Your task to perform on an android device: change text size in settings app Image 0: 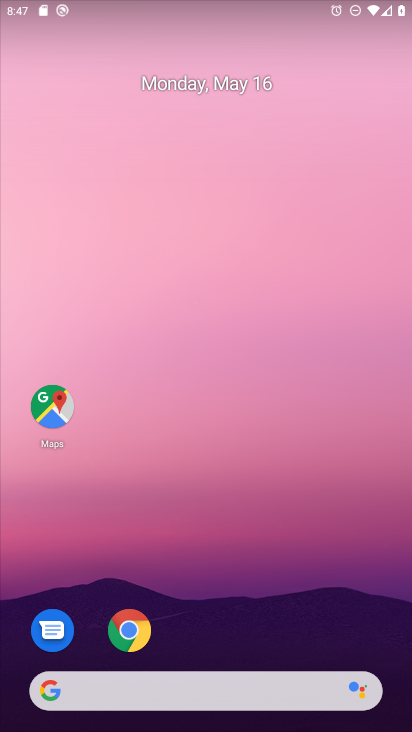
Step 0: drag from (245, 586) to (244, 136)
Your task to perform on an android device: change text size in settings app Image 1: 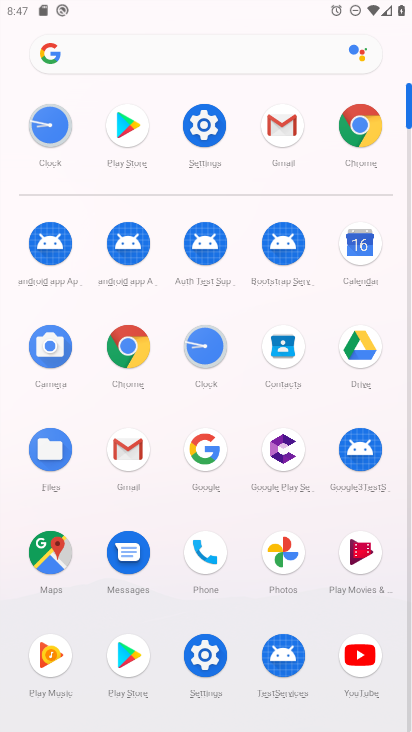
Step 1: click (210, 652)
Your task to perform on an android device: change text size in settings app Image 2: 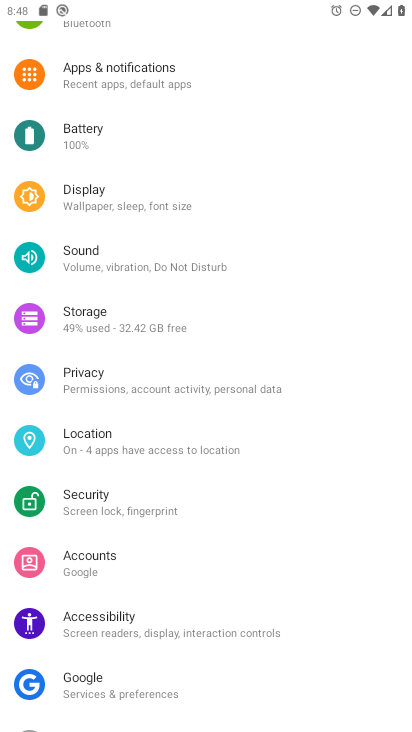
Step 2: click (184, 203)
Your task to perform on an android device: change text size in settings app Image 3: 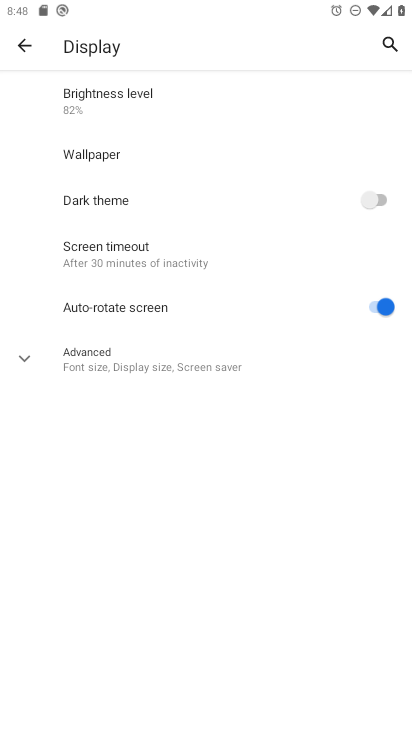
Step 3: click (78, 366)
Your task to perform on an android device: change text size in settings app Image 4: 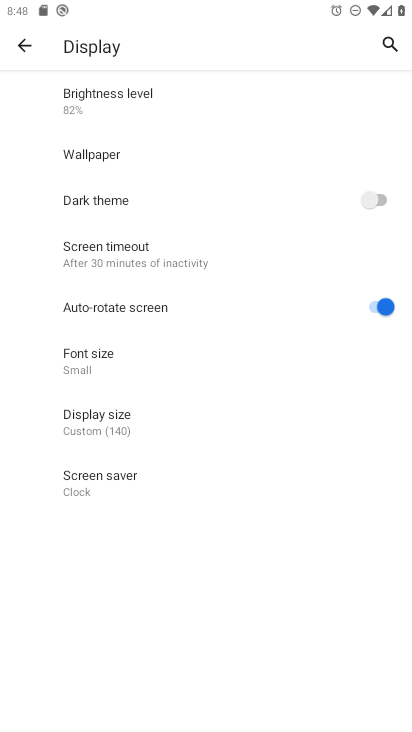
Step 4: click (74, 351)
Your task to perform on an android device: change text size in settings app Image 5: 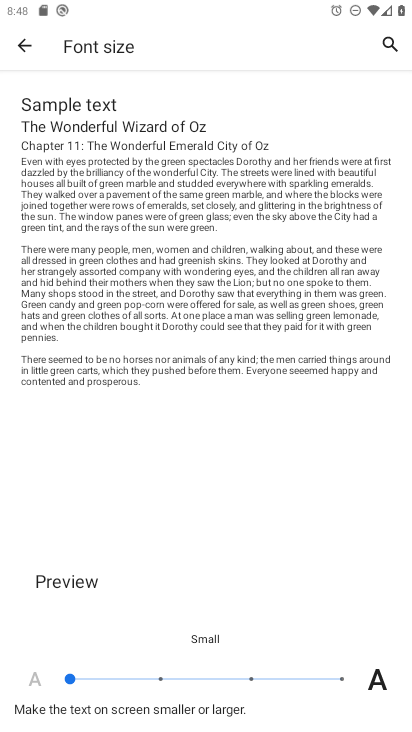
Step 5: task complete